Your task to perform on an android device: Open the phone app and click the voicemail tab. Image 0: 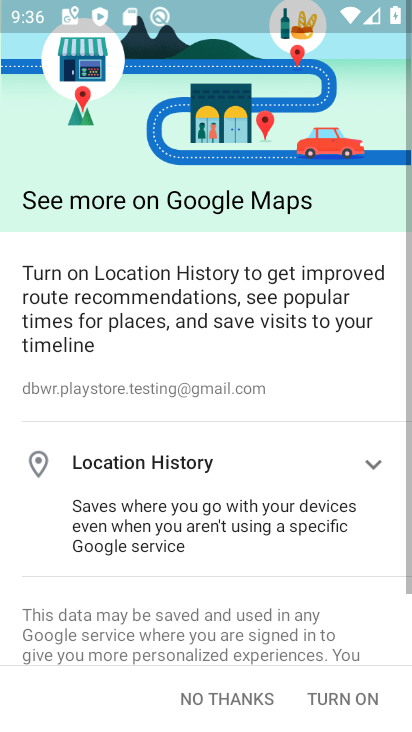
Step 0: press home button
Your task to perform on an android device: Open the phone app and click the voicemail tab. Image 1: 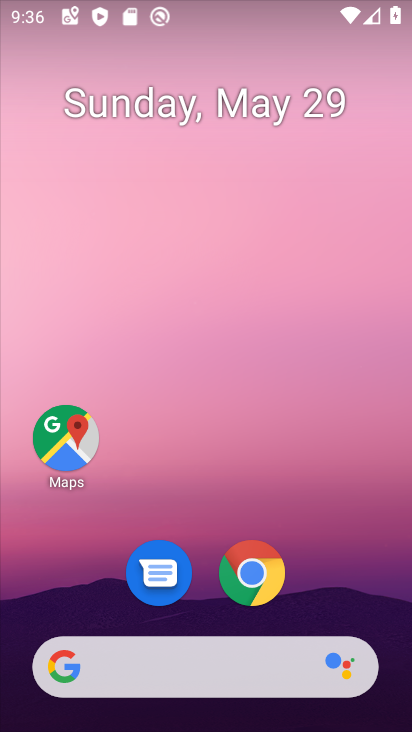
Step 1: drag from (319, 380) to (193, 1)
Your task to perform on an android device: Open the phone app and click the voicemail tab. Image 2: 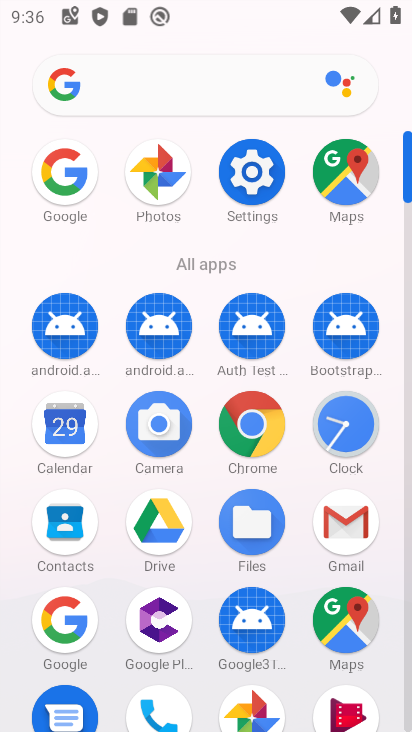
Step 2: click (157, 701)
Your task to perform on an android device: Open the phone app and click the voicemail tab. Image 3: 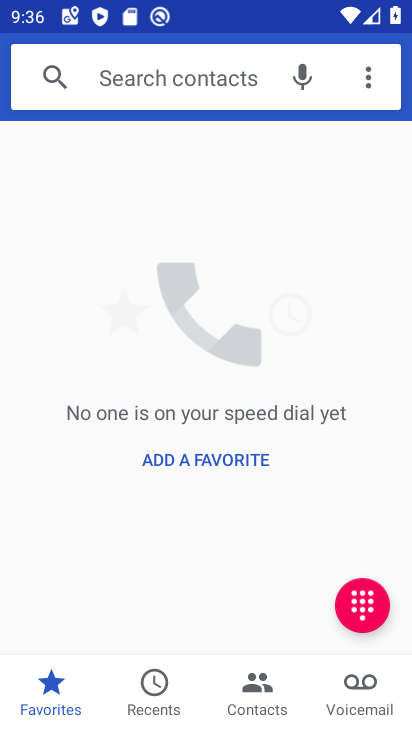
Step 3: click (342, 689)
Your task to perform on an android device: Open the phone app and click the voicemail tab. Image 4: 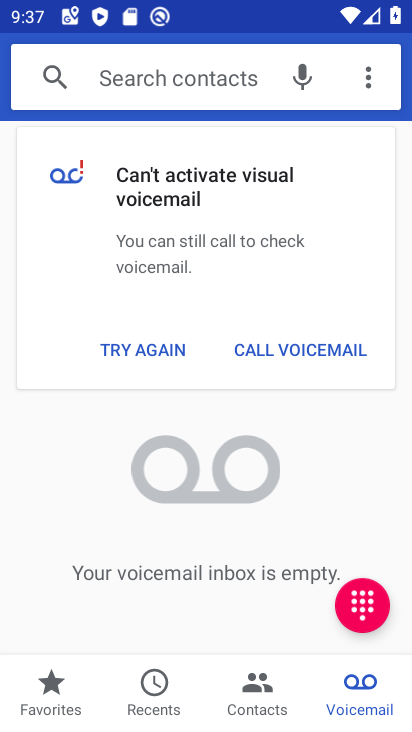
Step 4: task complete